Your task to perform on an android device: change the upload size in google photos Image 0: 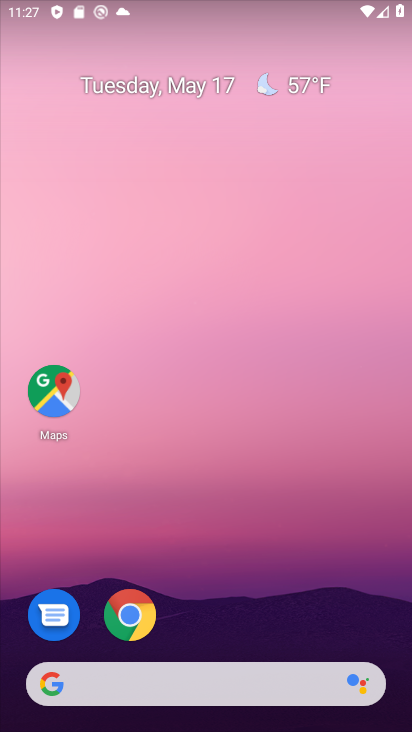
Step 0: drag from (370, 605) to (216, 44)
Your task to perform on an android device: change the upload size in google photos Image 1: 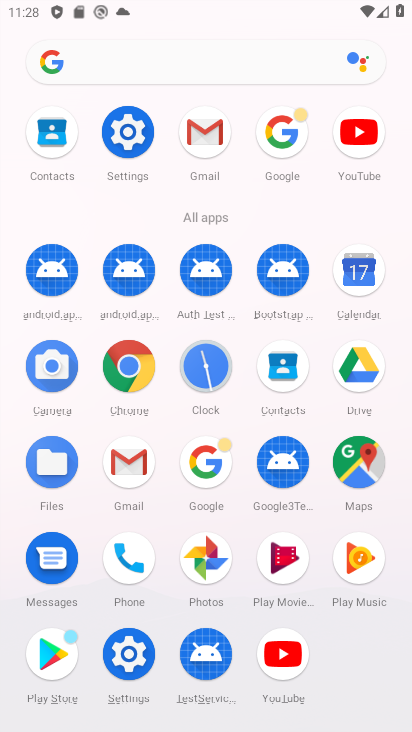
Step 1: click (219, 565)
Your task to perform on an android device: change the upload size in google photos Image 2: 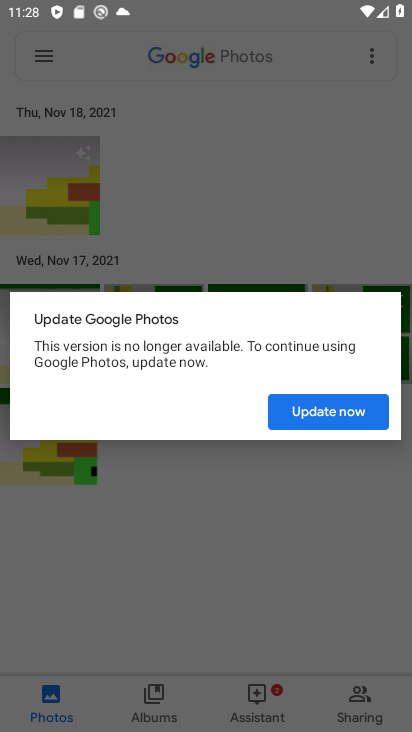
Step 2: click (355, 415)
Your task to perform on an android device: change the upload size in google photos Image 3: 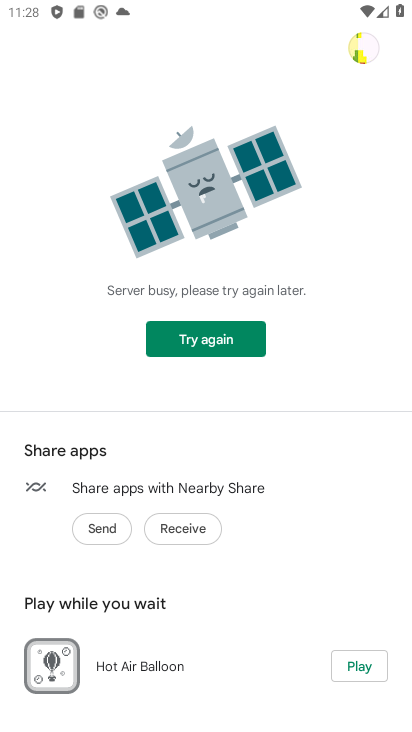
Step 3: click (232, 344)
Your task to perform on an android device: change the upload size in google photos Image 4: 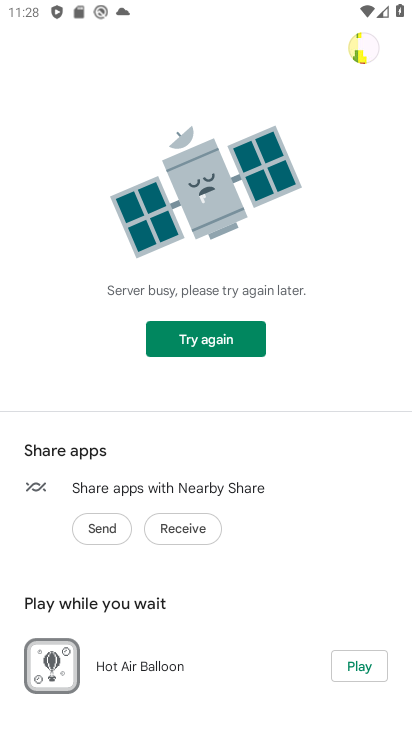
Step 4: task complete